Your task to perform on an android device: turn on bluetooth scan Image 0: 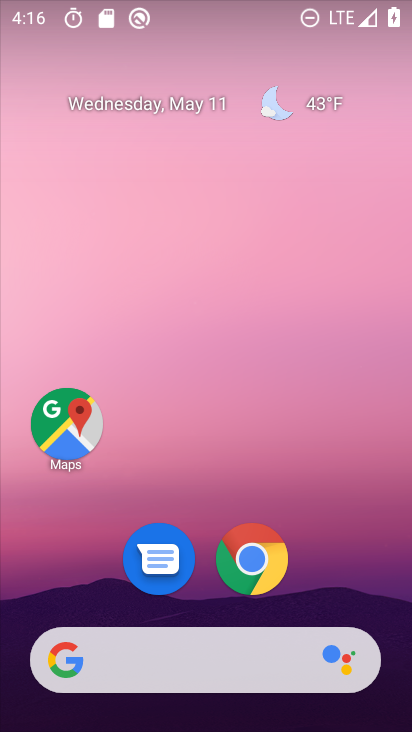
Step 0: drag from (345, 538) to (261, 83)
Your task to perform on an android device: turn on bluetooth scan Image 1: 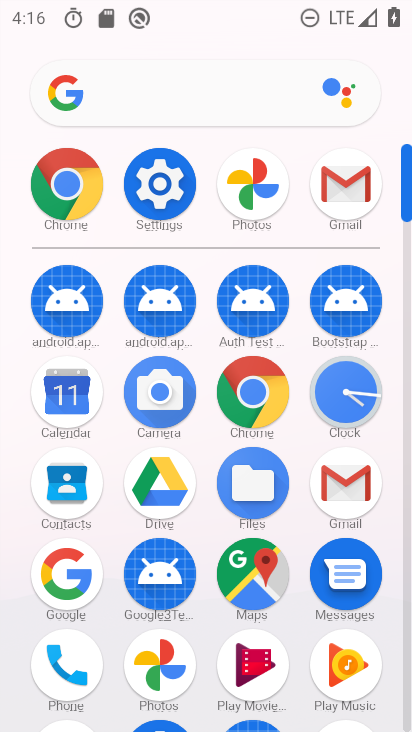
Step 1: click (161, 198)
Your task to perform on an android device: turn on bluetooth scan Image 2: 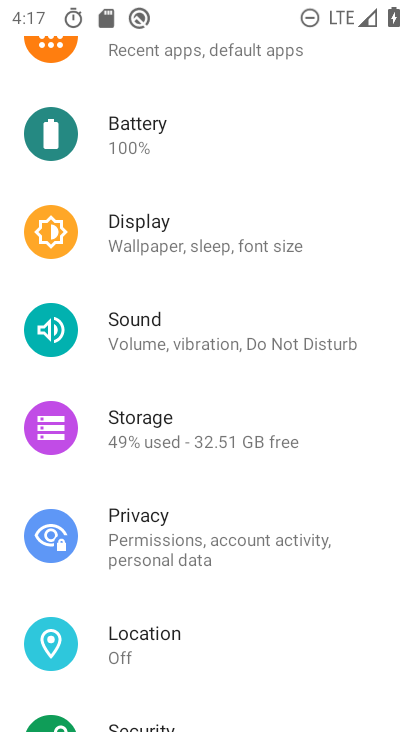
Step 2: click (209, 650)
Your task to perform on an android device: turn on bluetooth scan Image 3: 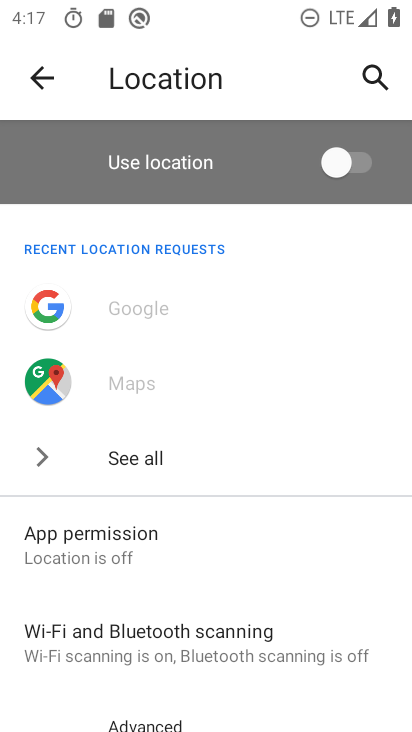
Step 3: drag from (242, 589) to (240, 250)
Your task to perform on an android device: turn on bluetooth scan Image 4: 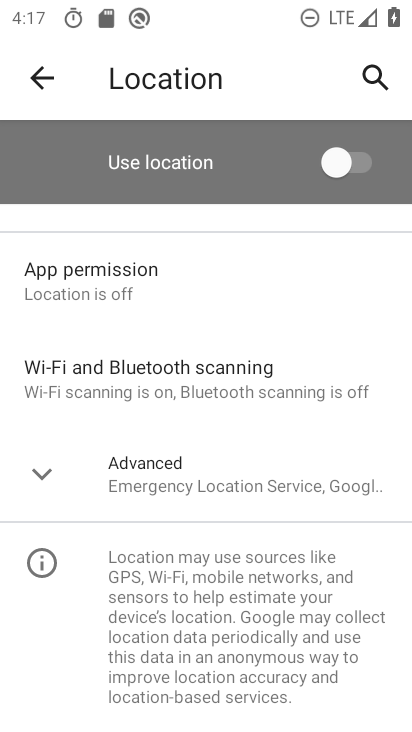
Step 4: click (234, 461)
Your task to perform on an android device: turn on bluetooth scan Image 5: 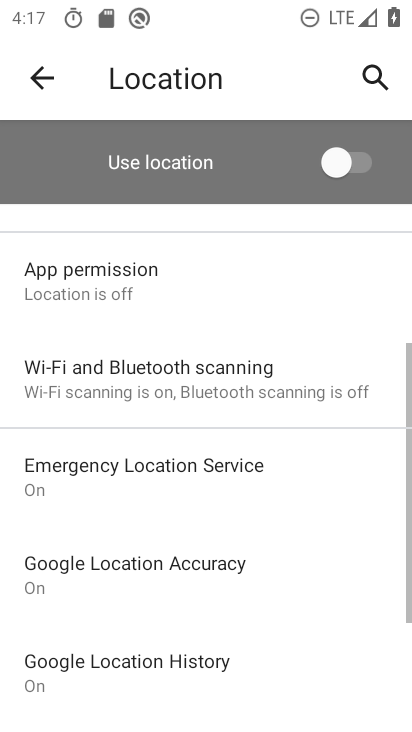
Step 5: drag from (275, 574) to (286, 403)
Your task to perform on an android device: turn on bluetooth scan Image 6: 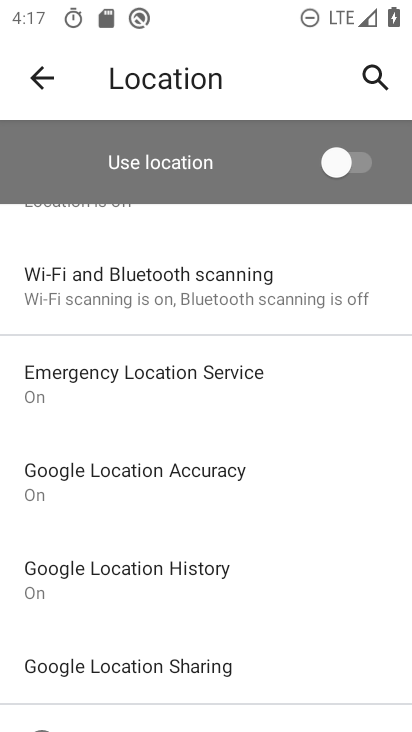
Step 6: click (234, 279)
Your task to perform on an android device: turn on bluetooth scan Image 7: 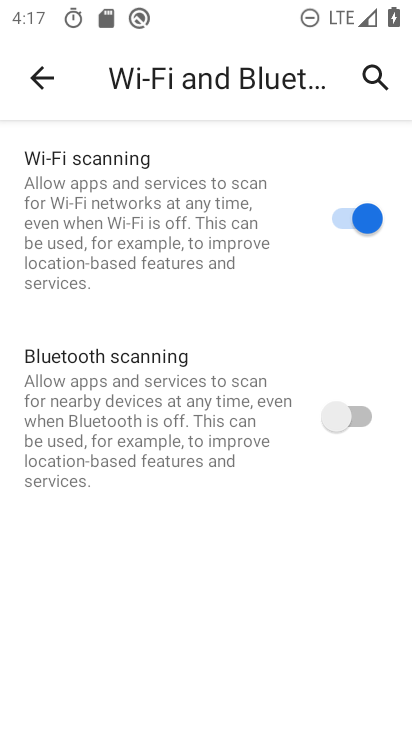
Step 7: click (351, 406)
Your task to perform on an android device: turn on bluetooth scan Image 8: 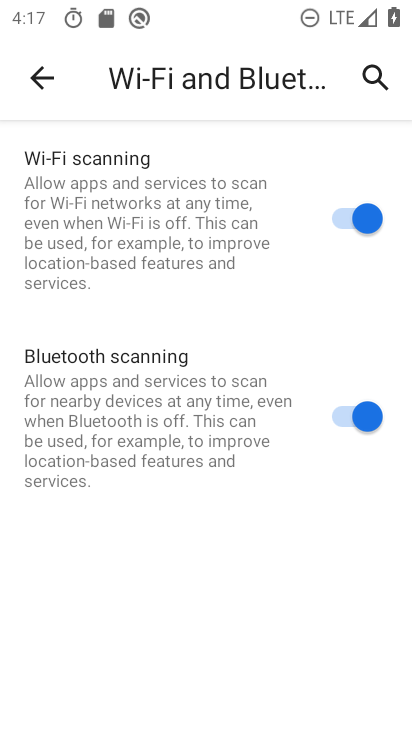
Step 8: task complete